Your task to perform on an android device: Open calendar and show me the second week of next month Image 0: 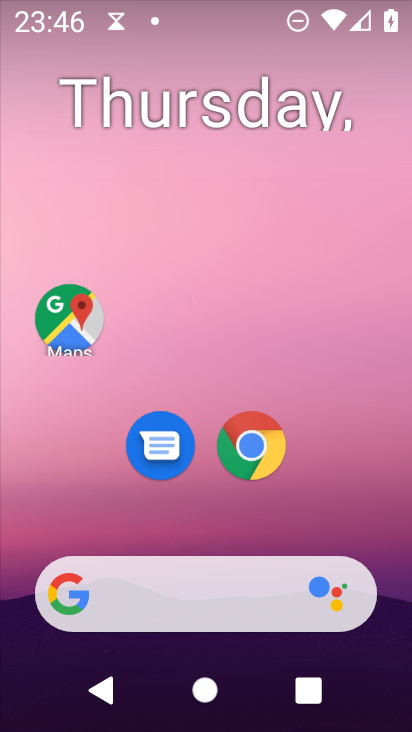
Step 0: drag from (225, 719) to (219, 8)
Your task to perform on an android device: Open calendar and show me the second week of next month Image 1: 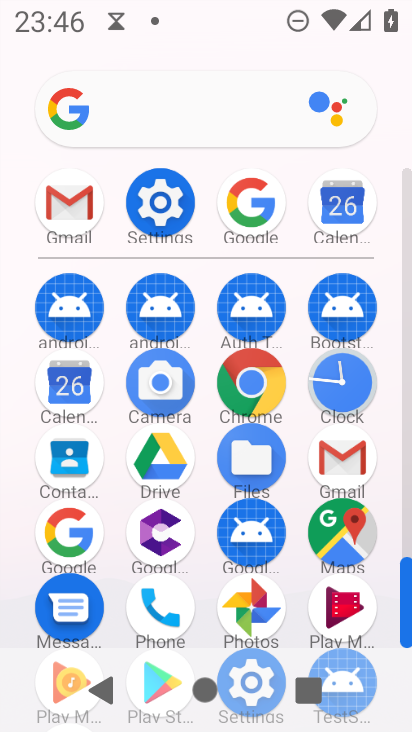
Step 1: click (73, 380)
Your task to perform on an android device: Open calendar and show me the second week of next month Image 2: 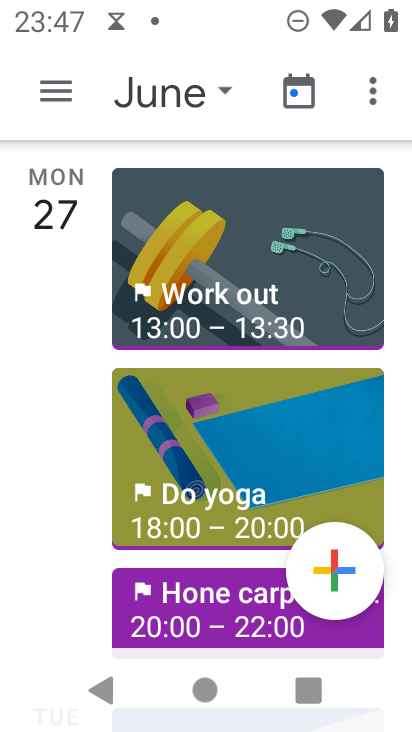
Step 2: click (188, 96)
Your task to perform on an android device: Open calendar and show me the second week of next month Image 3: 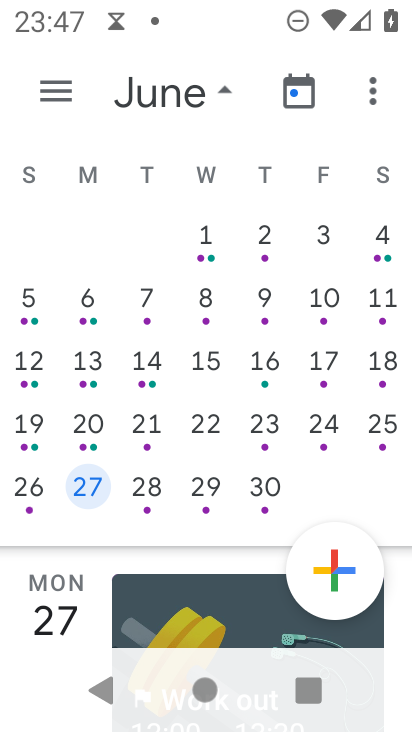
Step 3: click (86, 357)
Your task to perform on an android device: Open calendar and show me the second week of next month Image 4: 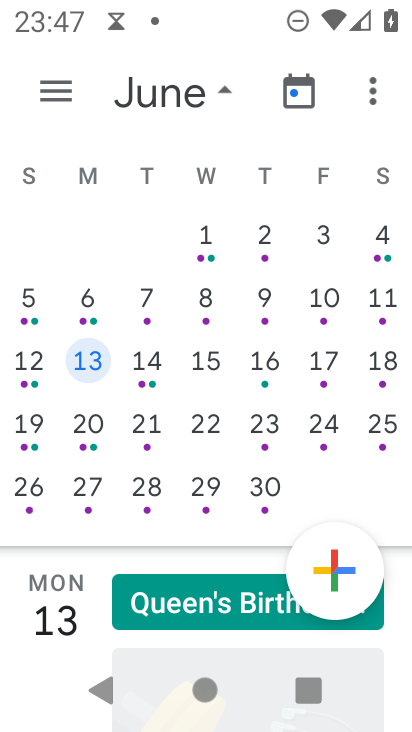
Step 4: click (62, 92)
Your task to perform on an android device: Open calendar and show me the second week of next month Image 5: 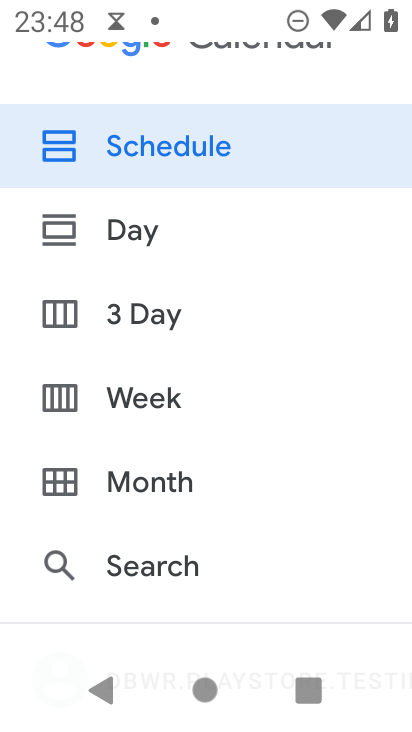
Step 5: click (147, 400)
Your task to perform on an android device: Open calendar and show me the second week of next month Image 6: 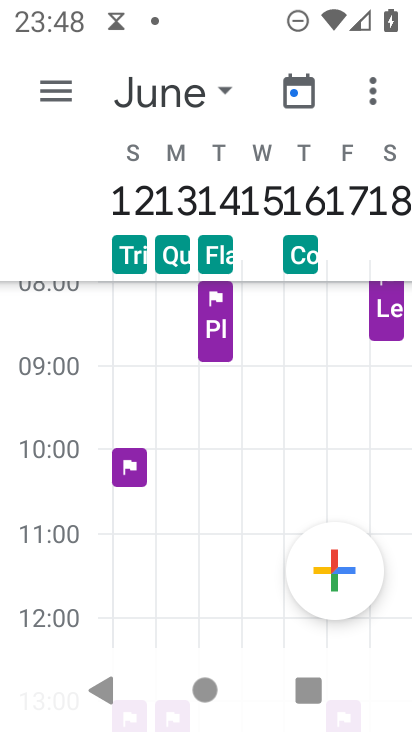
Step 6: task complete